Your task to perform on an android device: Go to sound settings Image 0: 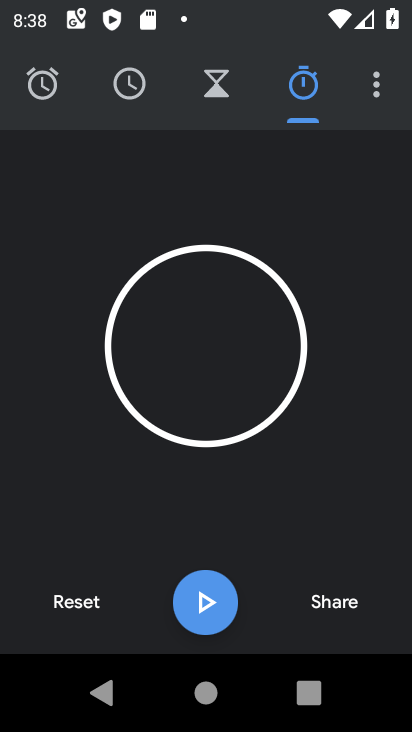
Step 0: press home button
Your task to perform on an android device: Go to sound settings Image 1: 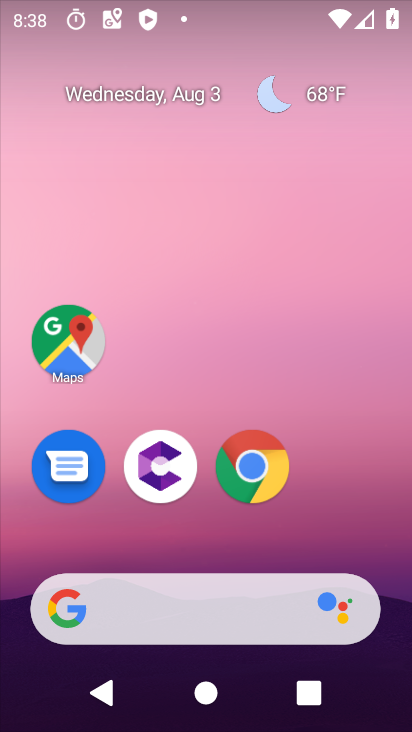
Step 1: drag from (334, 501) to (369, 112)
Your task to perform on an android device: Go to sound settings Image 2: 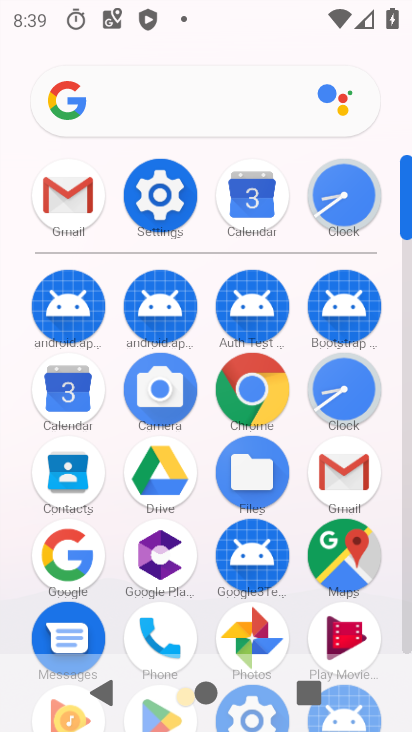
Step 2: click (167, 202)
Your task to perform on an android device: Go to sound settings Image 3: 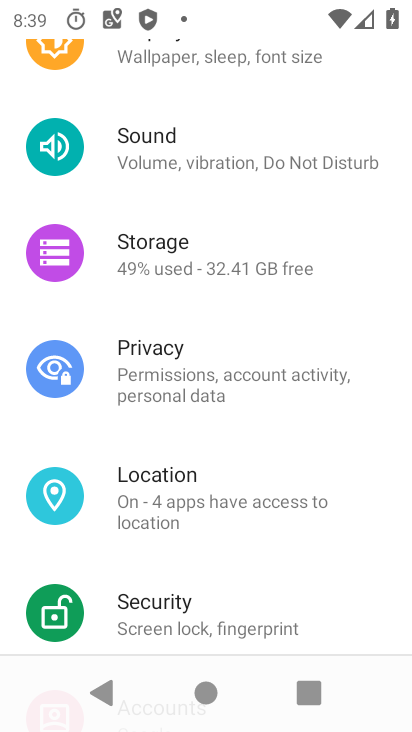
Step 3: click (197, 160)
Your task to perform on an android device: Go to sound settings Image 4: 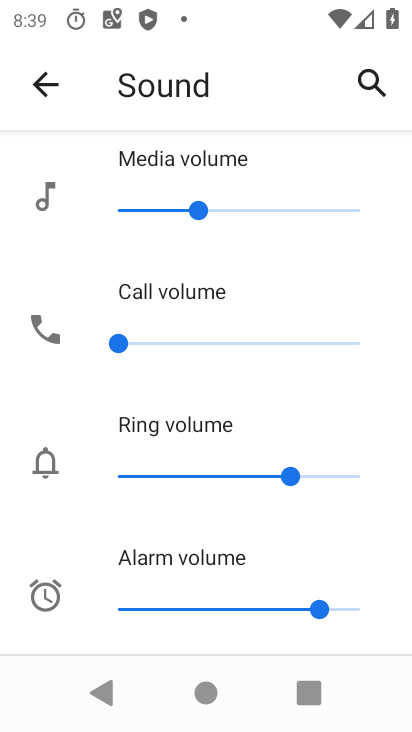
Step 4: task complete